Your task to perform on an android device: delete location history Image 0: 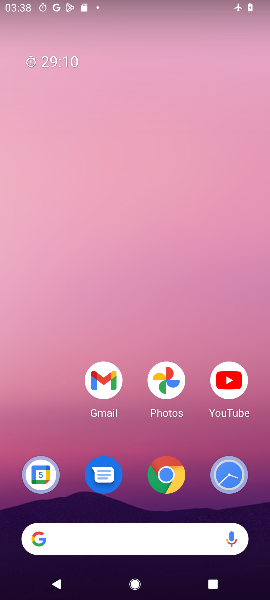
Step 0: drag from (47, 434) to (40, 194)
Your task to perform on an android device: delete location history Image 1: 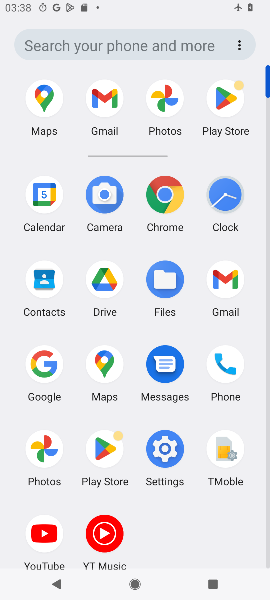
Step 1: click (102, 365)
Your task to perform on an android device: delete location history Image 2: 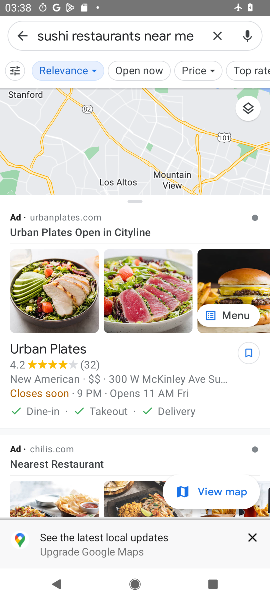
Step 2: press back button
Your task to perform on an android device: delete location history Image 3: 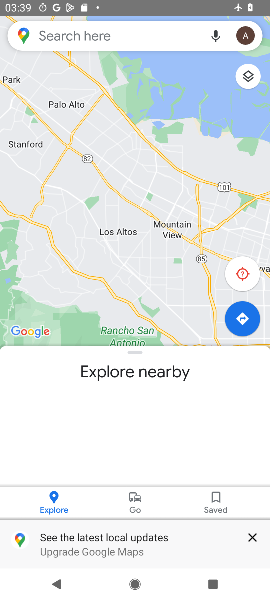
Step 3: click (246, 33)
Your task to perform on an android device: delete location history Image 4: 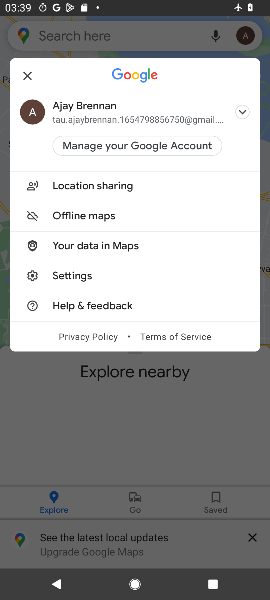
Step 4: click (29, 69)
Your task to perform on an android device: delete location history Image 5: 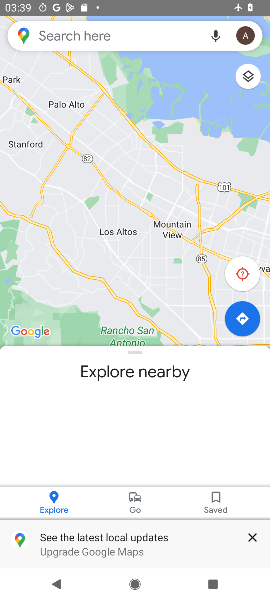
Step 5: task complete